Your task to perform on an android device: Open internet settings Image 0: 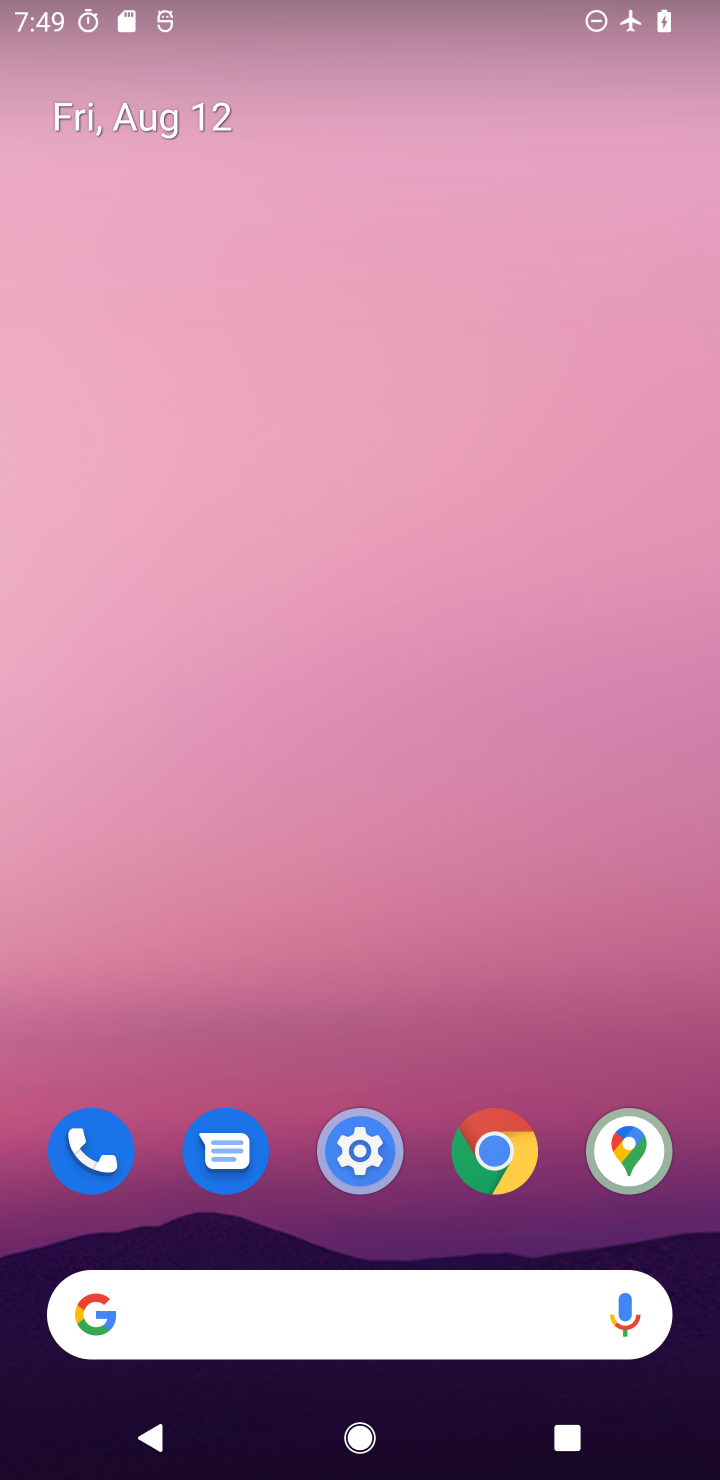
Step 0: drag from (420, 1037) to (389, 18)
Your task to perform on an android device: Open internet settings Image 1: 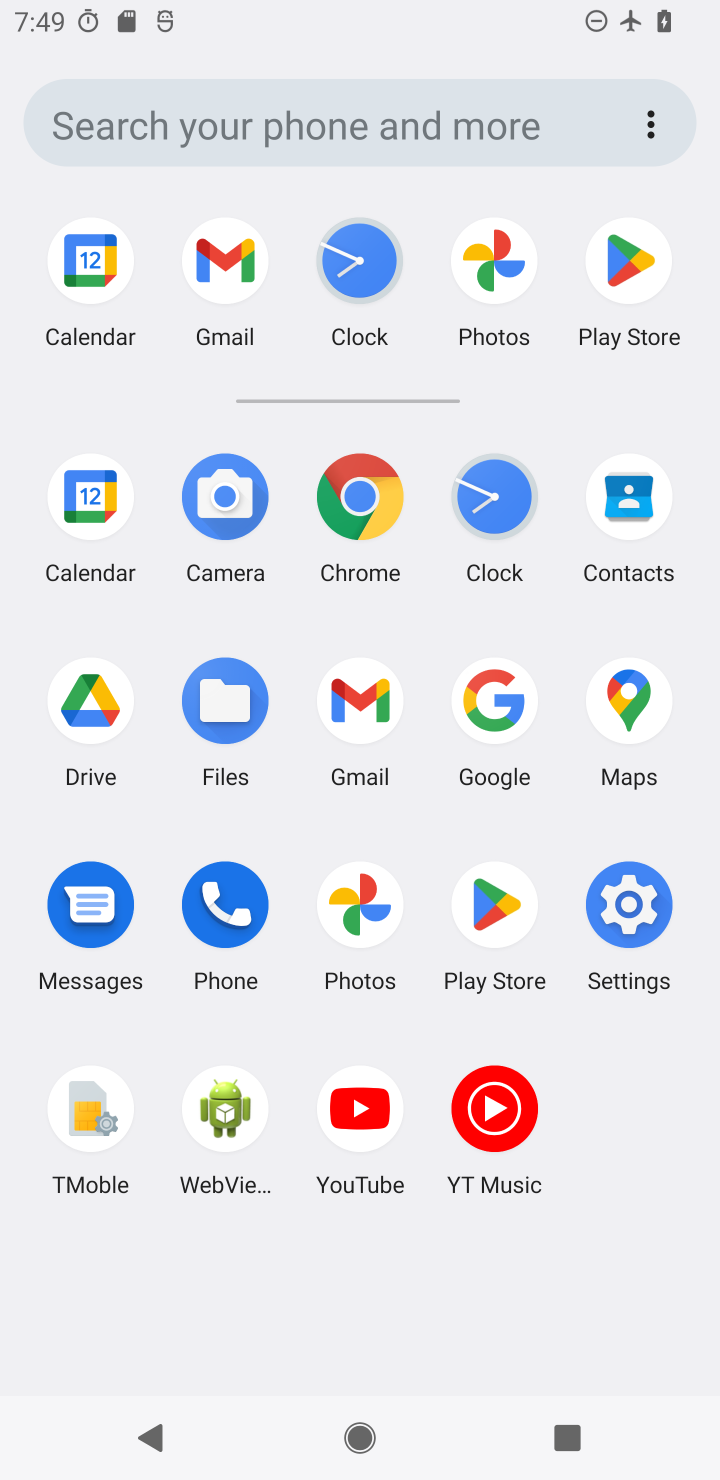
Step 1: click (613, 889)
Your task to perform on an android device: Open internet settings Image 2: 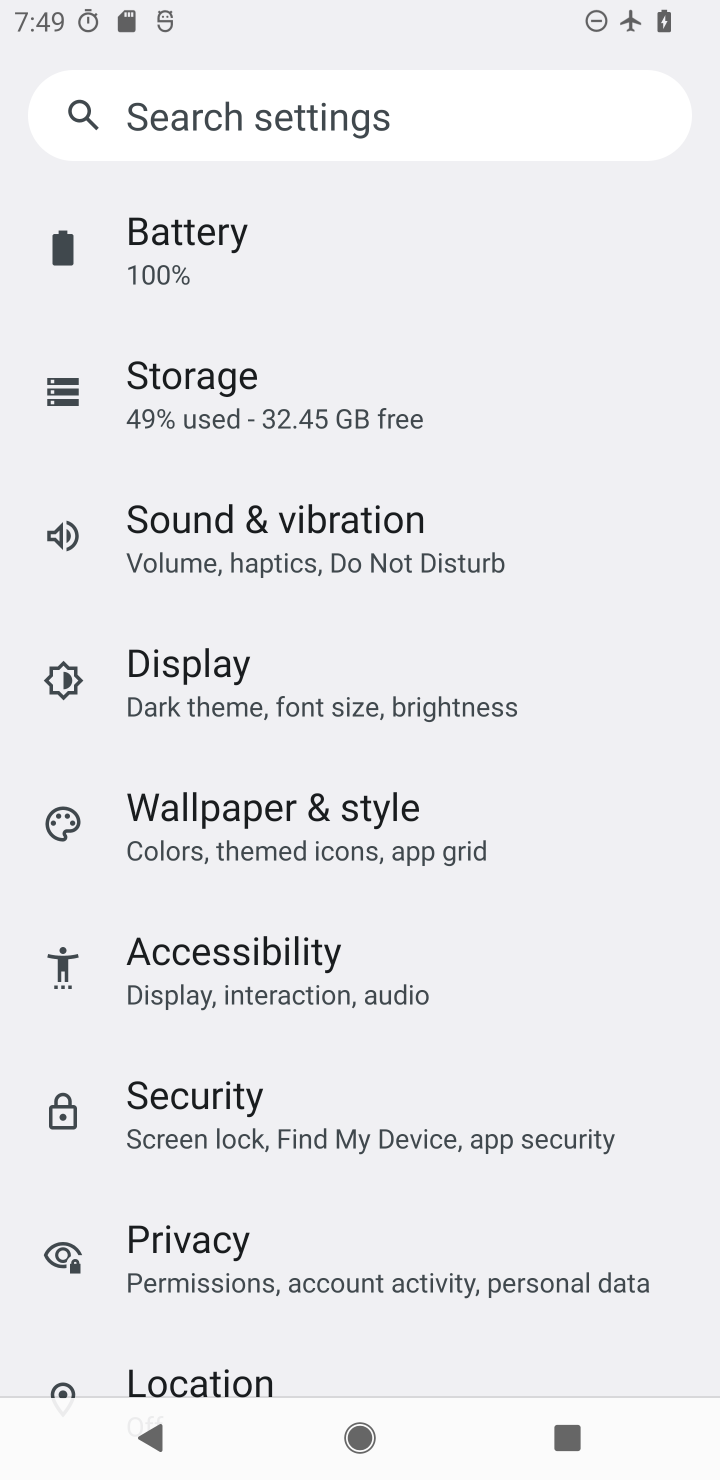
Step 2: drag from (483, 288) to (496, 1239)
Your task to perform on an android device: Open internet settings Image 3: 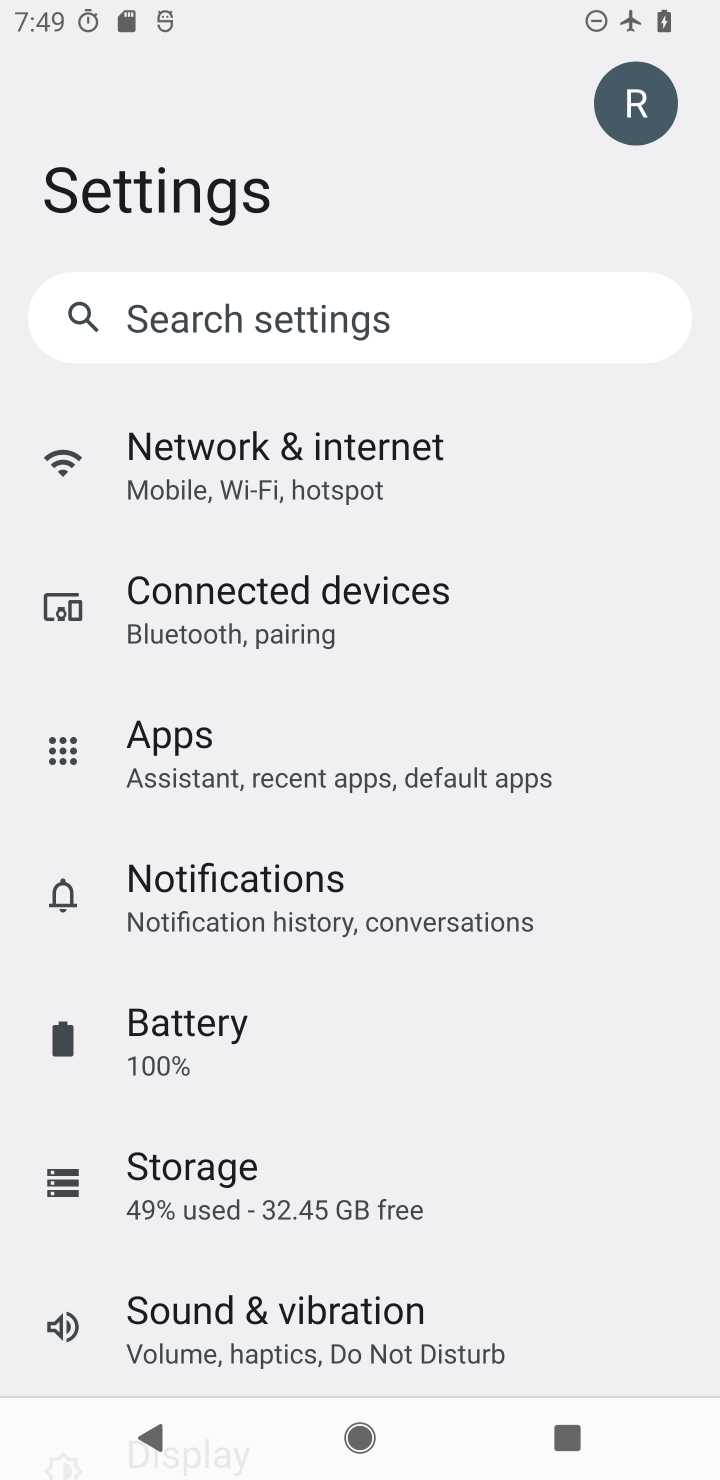
Step 3: click (372, 500)
Your task to perform on an android device: Open internet settings Image 4: 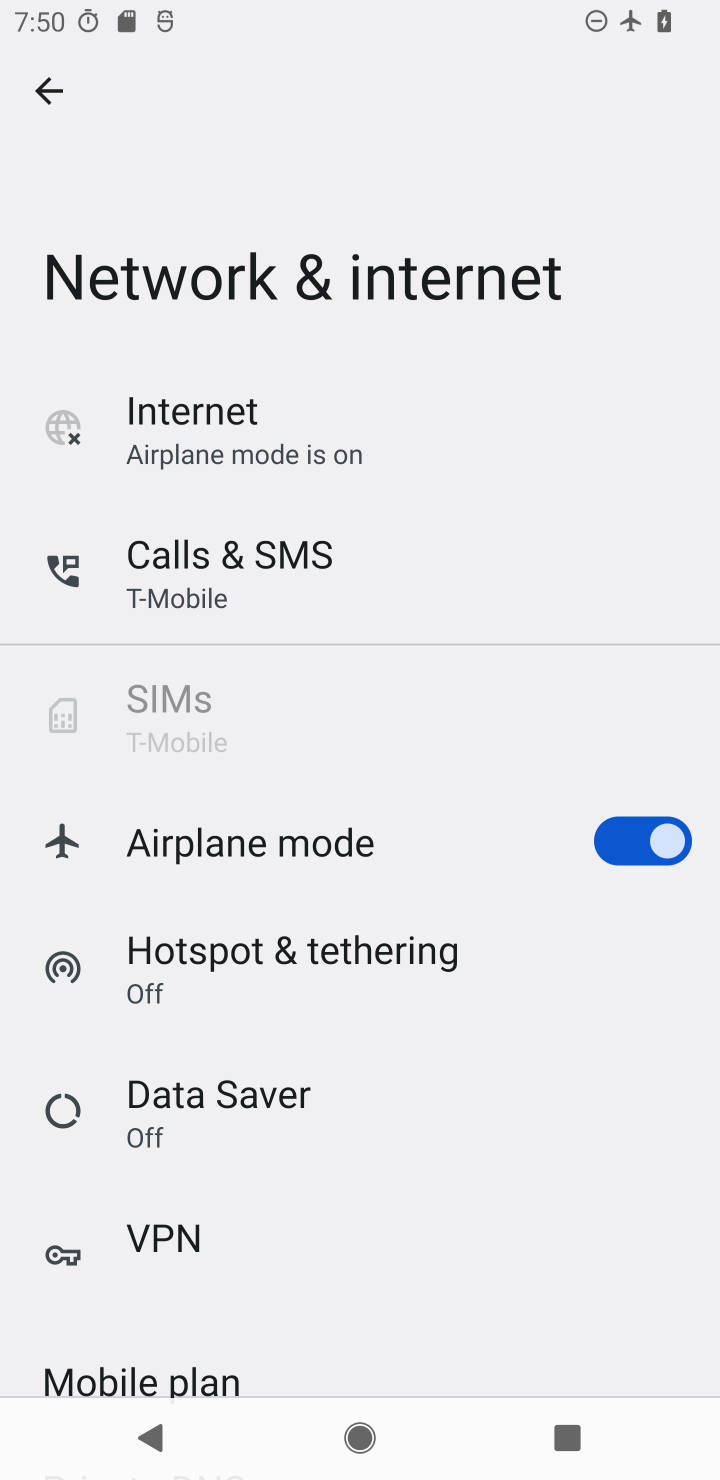
Step 4: click (293, 425)
Your task to perform on an android device: Open internet settings Image 5: 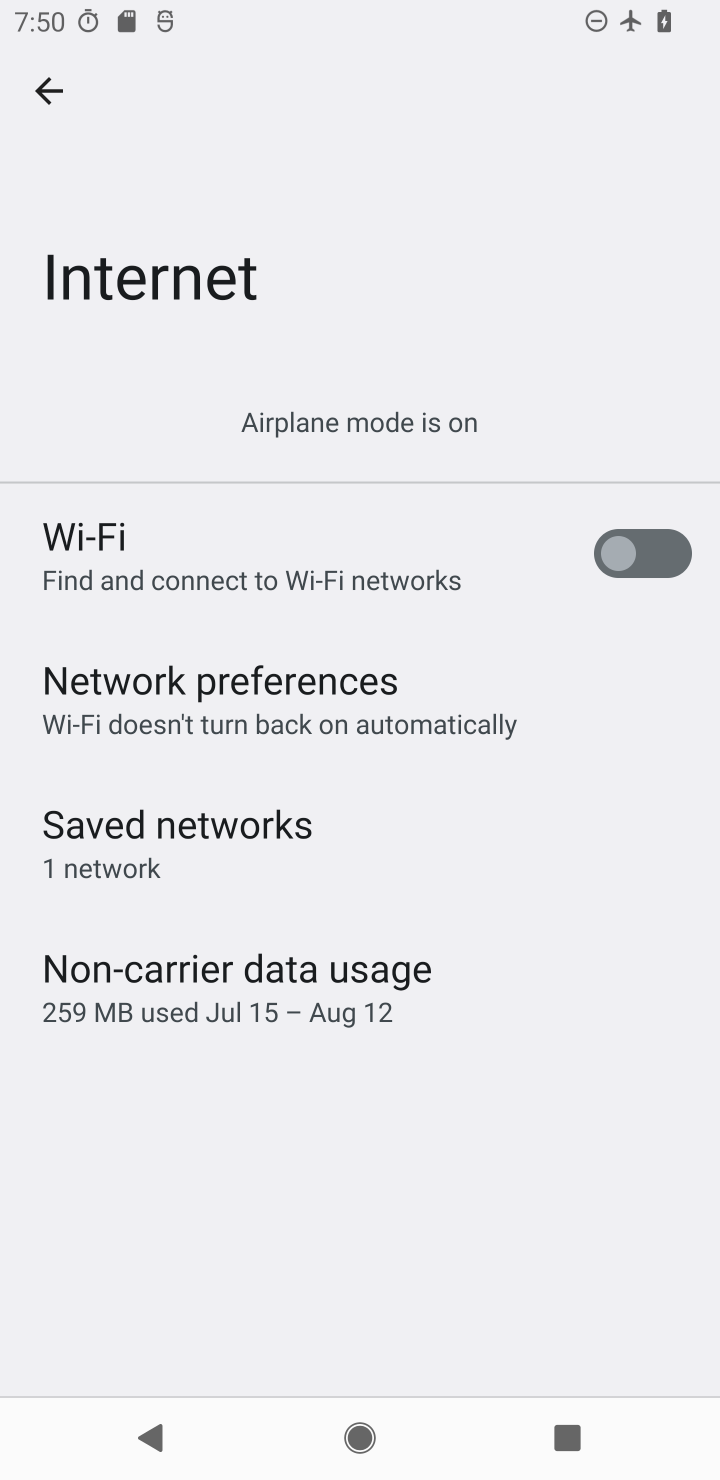
Step 5: task complete